Your task to perform on an android device: change the clock display to digital Image 0: 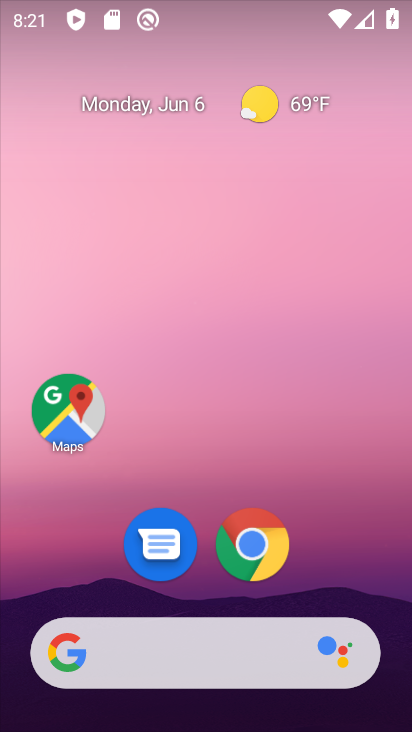
Step 0: drag from (208, 543) to (262, 83)
Your task to perform on an android device: change the clock display to digital Image 1: 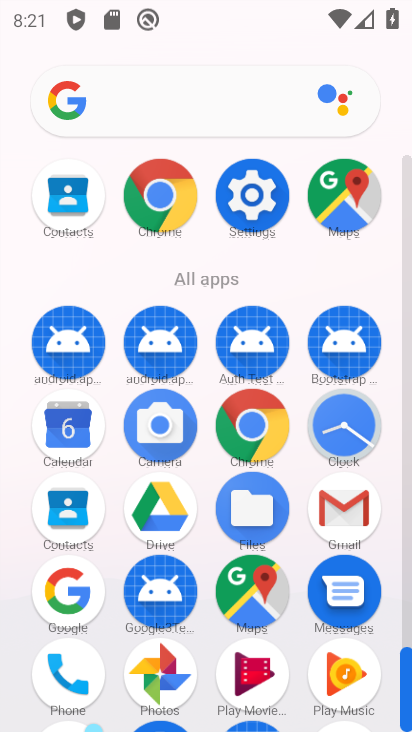
Step 1: click (333, 420)
Your task to perform on an android device: change the clock display to digital Image 2: 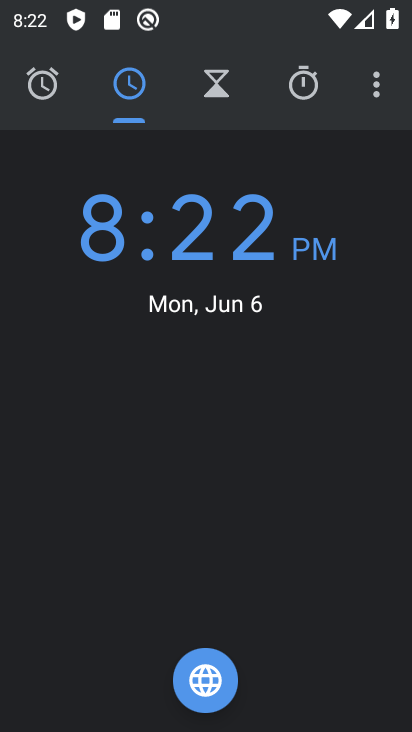
Step 2: click (384, 82)
Your task to perform on an android device: change the clock display to digital Image 3: 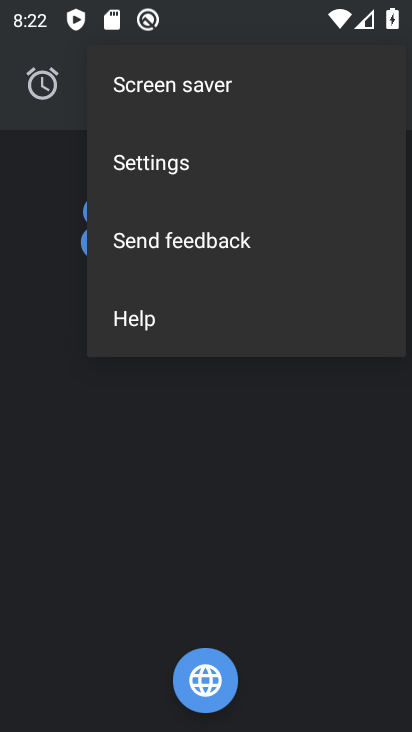
Step 3: click (208, 179)
Your task to perform on an android device: change the clock display to digital Image 4: 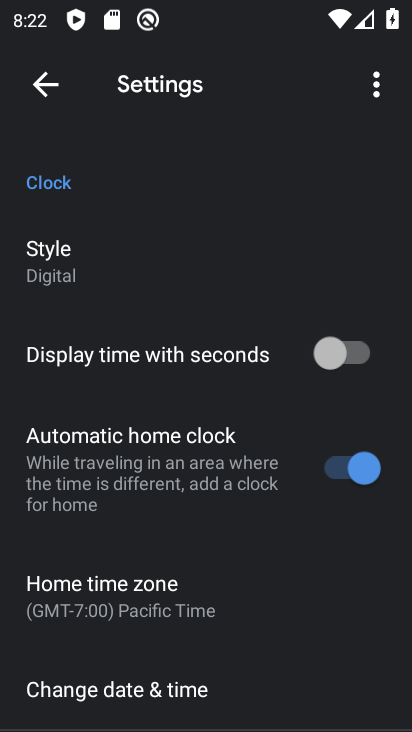
Step 4: click (171, 650)
Your task to perform on an android device: change the clock display to digital Image 5: 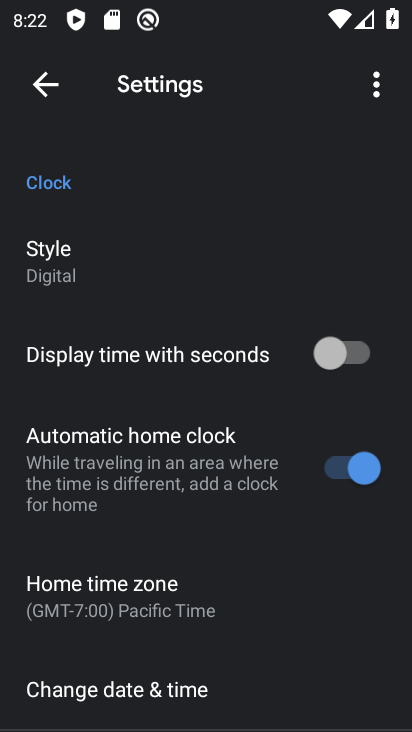
Step 5: click (58, 265)
Your task to perform on an android device: change the clock display to digital Image 6: 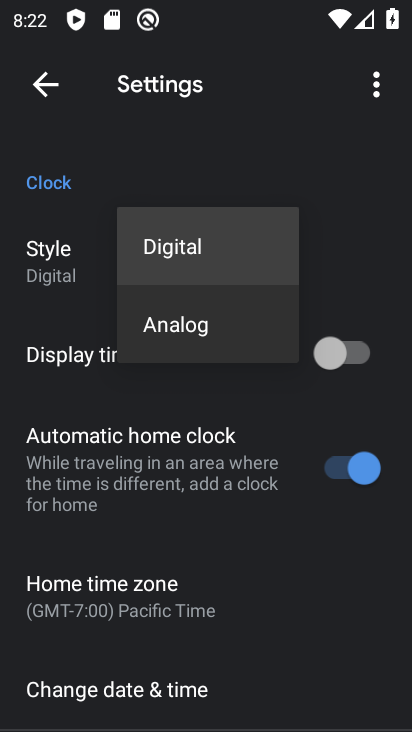
Step 6: task complete